Your task to perform on an android device: Go to Google Image 0: 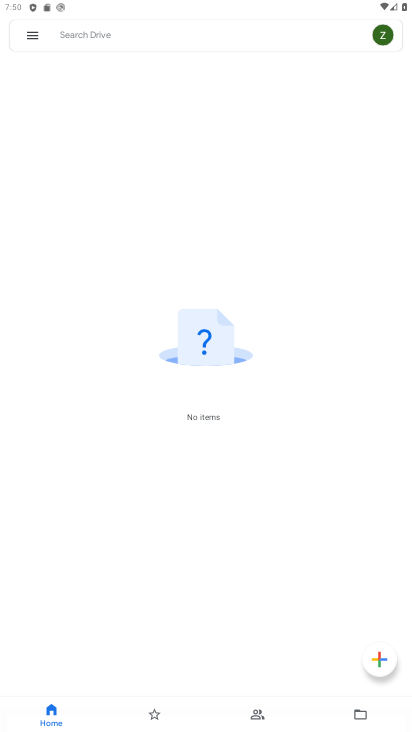
Step 0: press home button
Your task to perform on an android device: Go to Google Image 1: 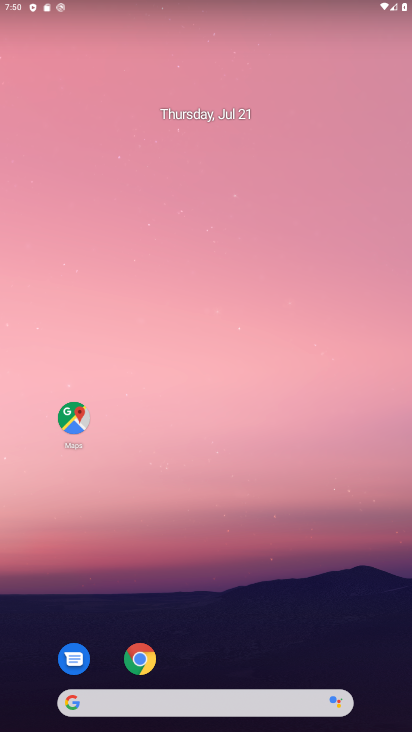
Step 1: drag from (285, 656) to (204, 228)
Your task to perform on an android device: Go to Google Image 2: 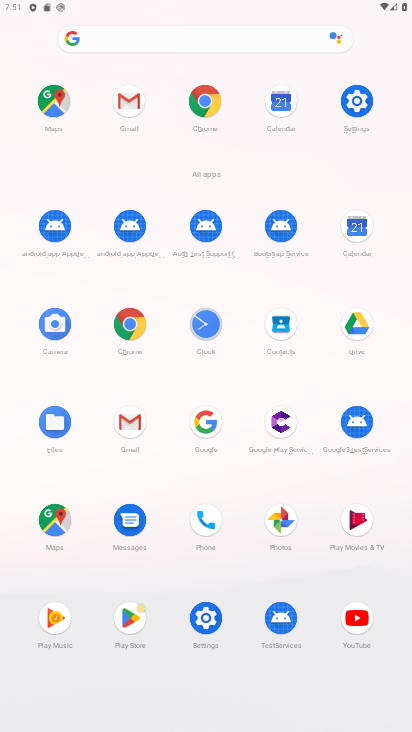
Step 2: click (200, 430)
Your task to perform on an android device: Go to Google Image 3: 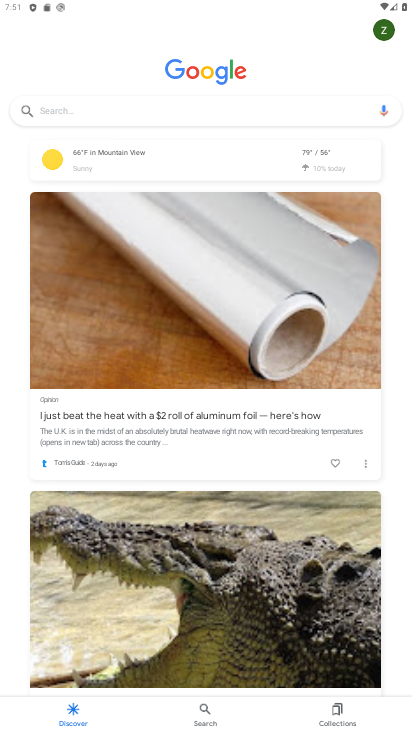
Step 3: task complete